Your task to perform on an android device: Search for seafood restaurants on Google Maps Image 0: 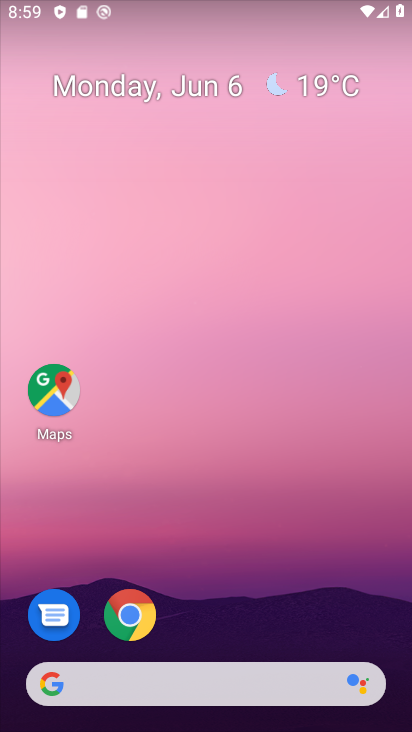
Step 0: click (58, 400)
Your task to perform on an android device: Search for seafood restaurants on Google Maps Image 1: 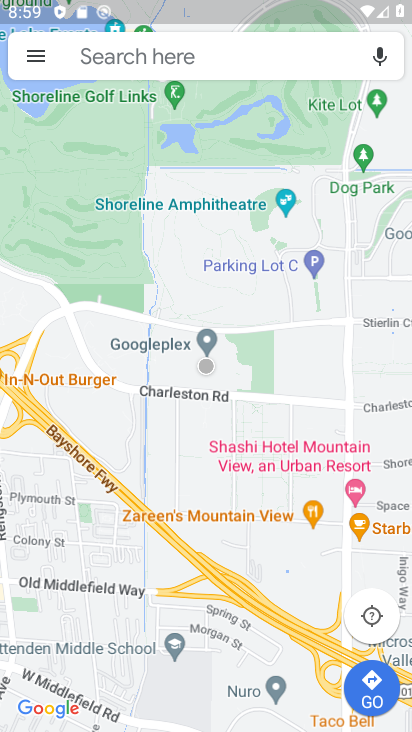
Step 1: click (123, 61)
Your task to perform on an android device: Search for seafood restaurants on Google Maps Image 2: 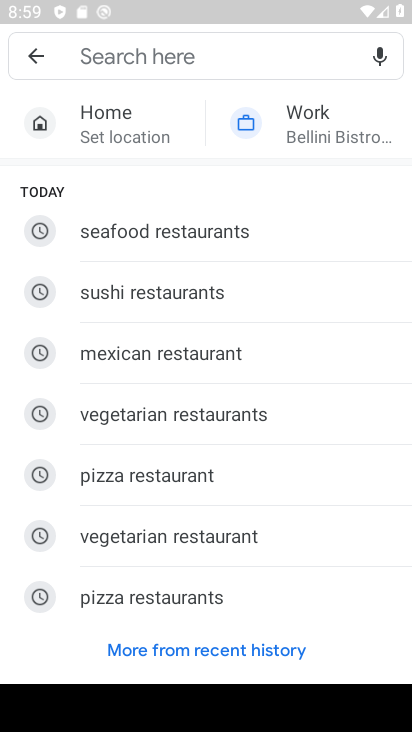
Step 2: click (151, 221)
Your task to perform on an android device: Search for seafood restaurants on Google Maps Image 3: 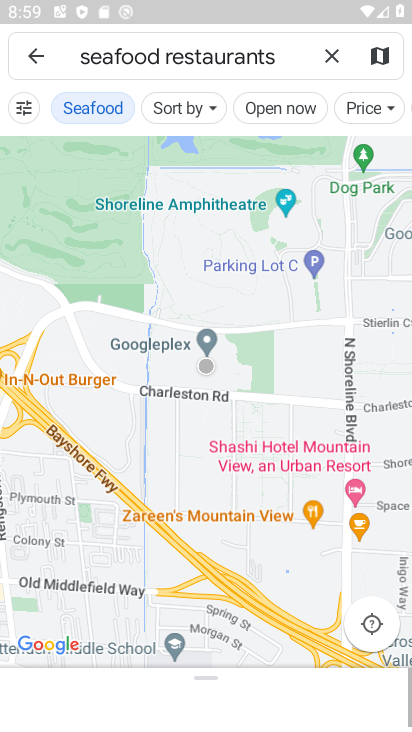
Step 3: task complete